Your task to perform on an android device: empty trash in the gmail app Image 0: 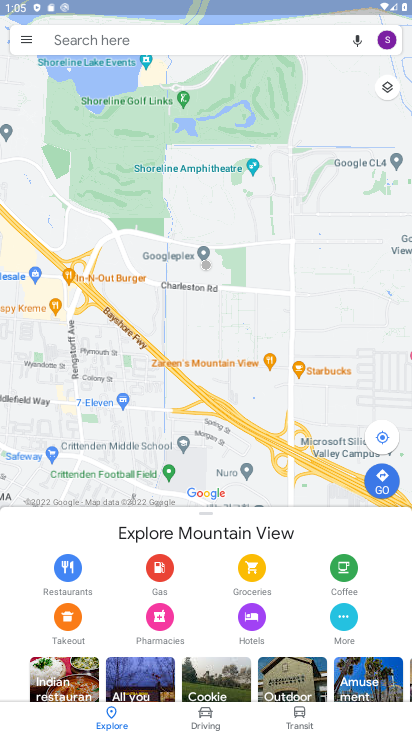
Step 0: press home button
Your task to perform on an android device: empty trash in the gmail app Image 1: 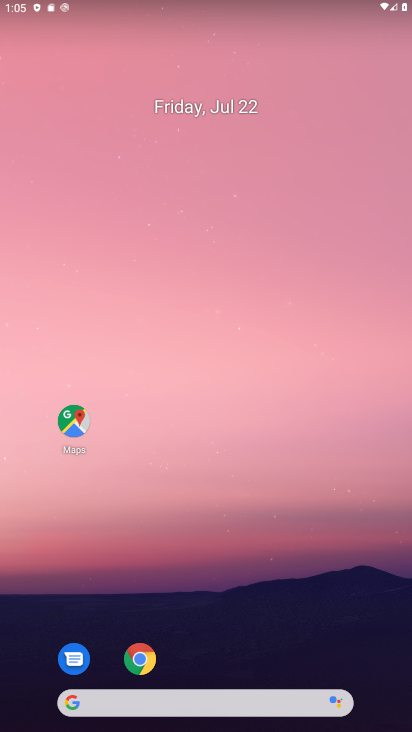
Step 1: drag from (229, 625) to (192, 72)
Your task to perform on an android device: empty trash in the gmail app Image 2: 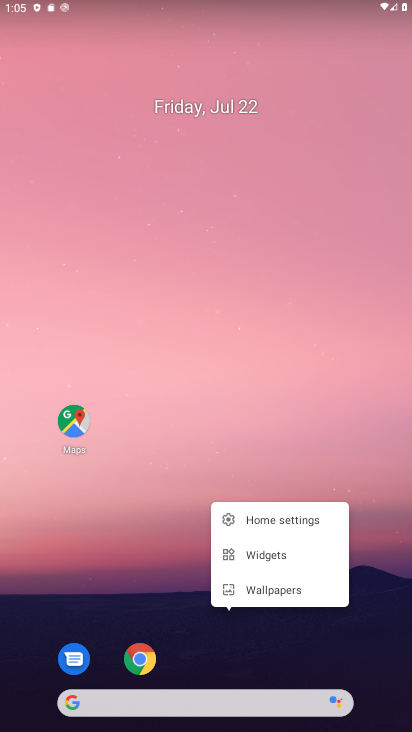
Step 2: click (187, 244)
Your task to perform on an android device: empty trash in the gmail app Image 3: 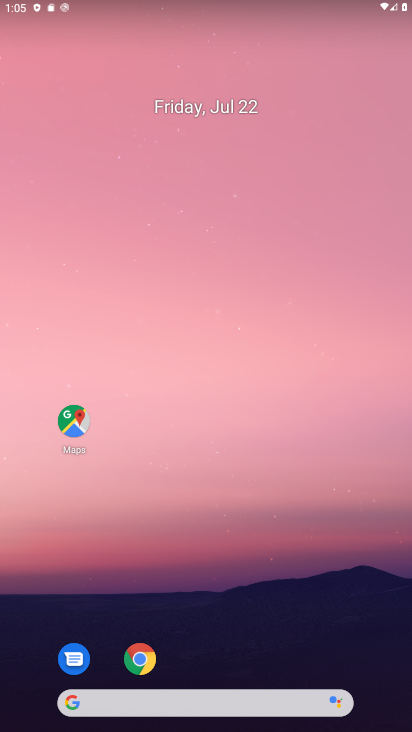
Step 3: drag from (246, 639) to (253, 1)
Your task to perform on an android device: empty trash in the gmail app Image 4: 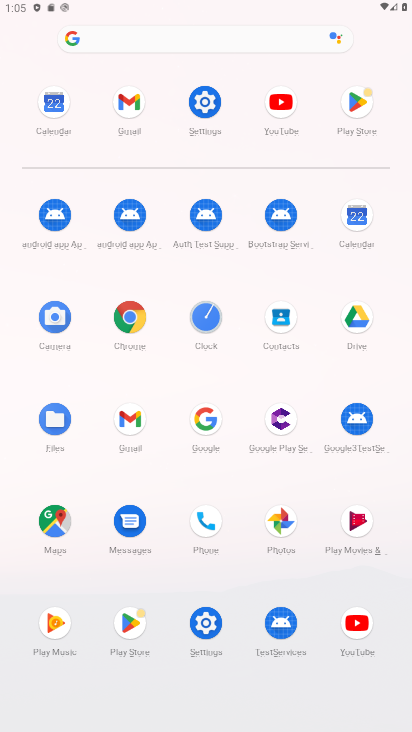
Step 4: click (135, 129)
Your task to perform on an android device: empty trash in the gmail app Image 5: 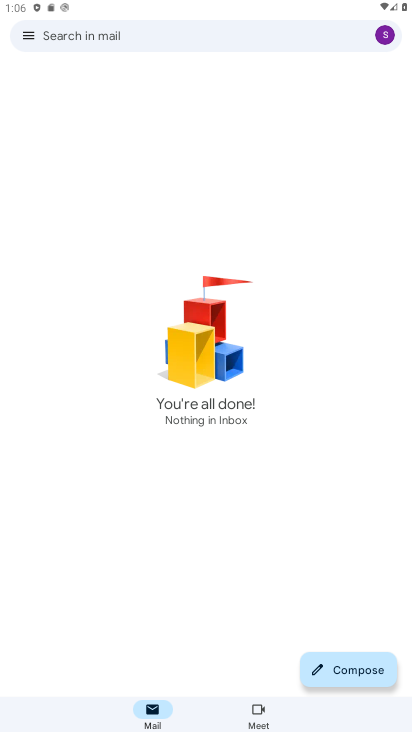
Step 5: click (31, 39)
Your task to perform on an android device: empty trash in the gmail app Image 6: 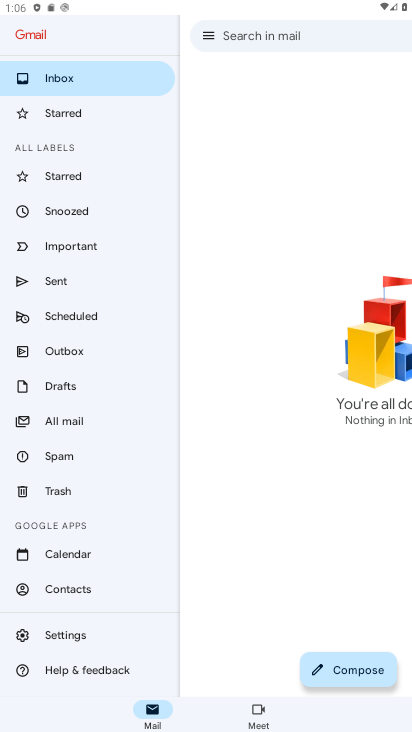
Step 6: click (70, 491)
Your task to perform on an android device: empty trash in the gmail app Image 7: 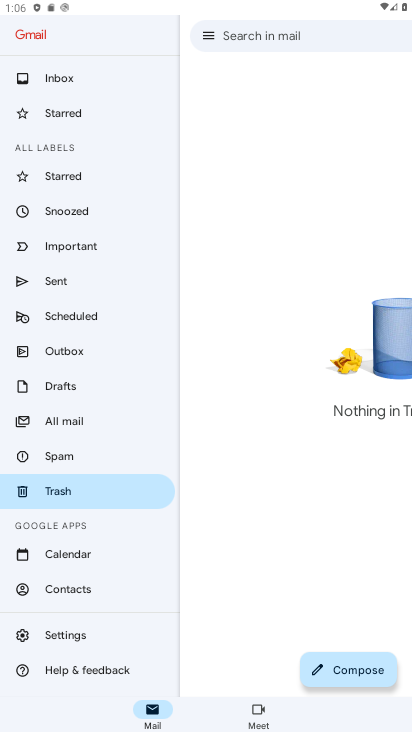
Step 7: task complete